Your task to perform on an android device: open device folders in google photos Image 0: 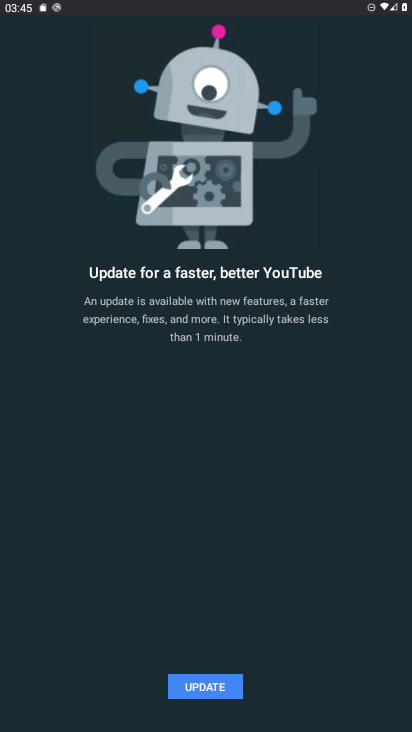
Step 0: press home button
Your task to perform on an android device: open device folders in google photos Image 1: 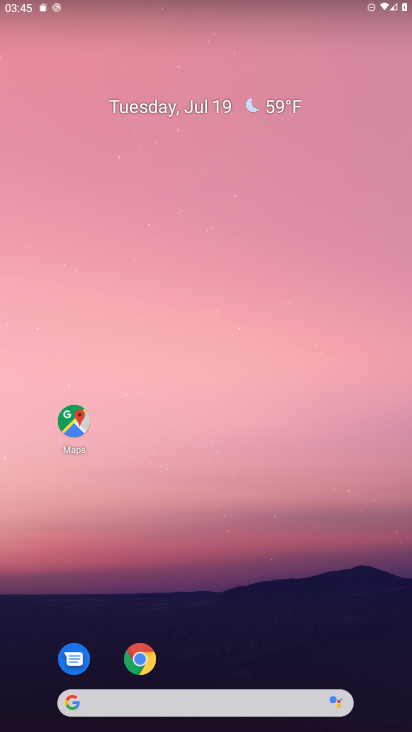
Step 1: drag from (194, 687) to (231, 78)
Your task to perform on an android device: open device folders in google photos Image 2: 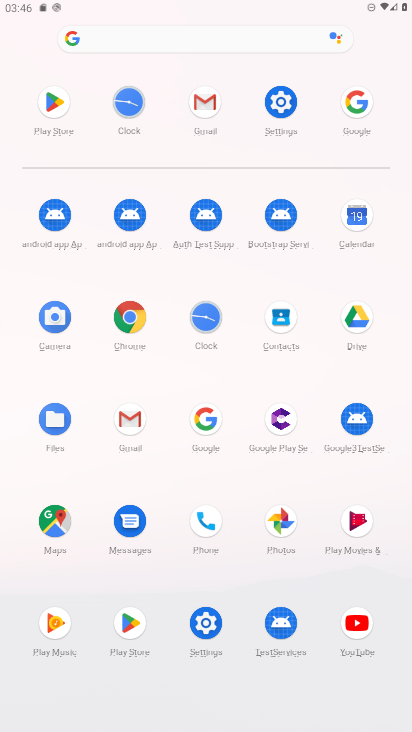
Step 2: click (282, 522)
Your task to perform on an android device: open device folders in google photos Image 3: 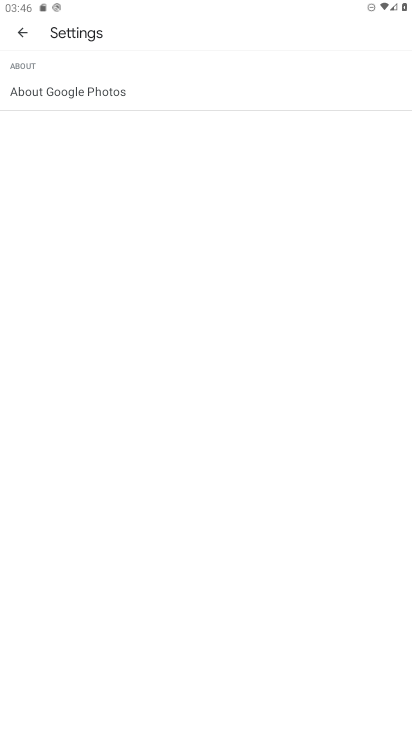
Step 3: press back button
Your task to perform on an android device: open device folders in google photos Image 4: 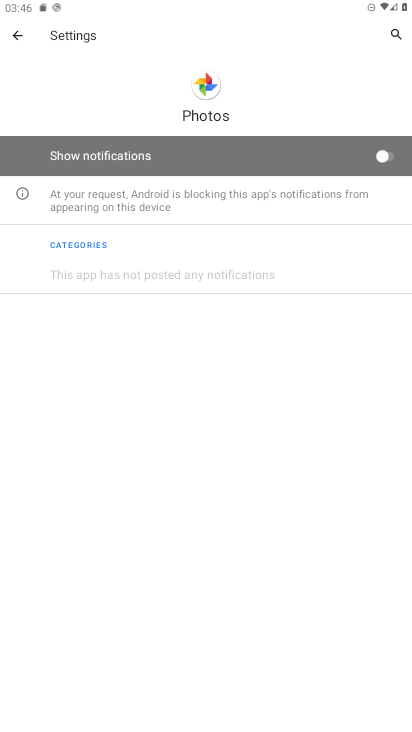
Step 4: press back button
Your task to perform on an android device: open device folders in google photos Image 5: 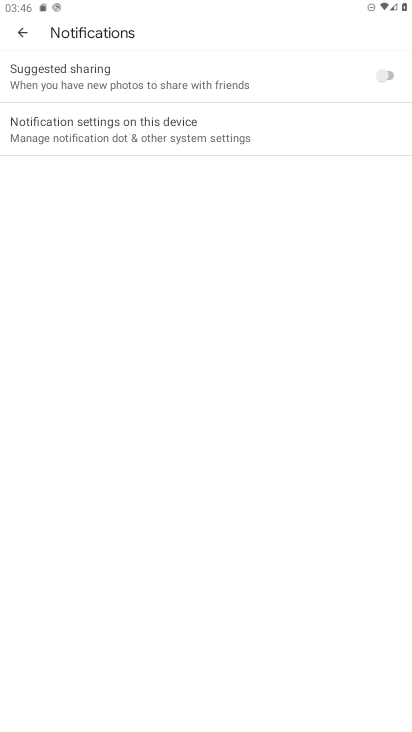
Step 5: press back button
Your task to perform on an android device: open device folders in google photos Image 6: 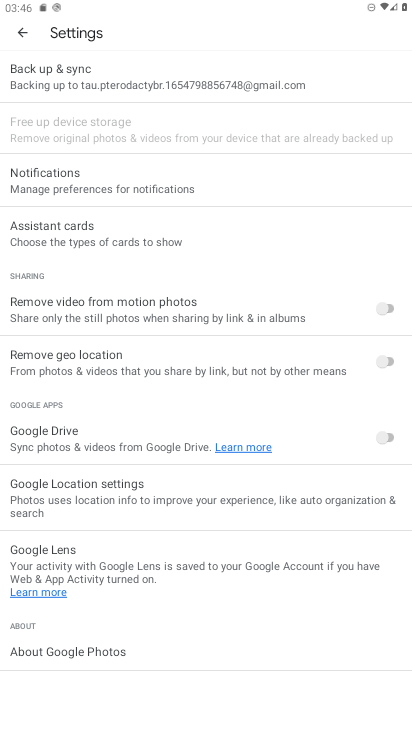
Step 6: press back button
Your task to perform on an android device: open device folders in google photos Image 7: 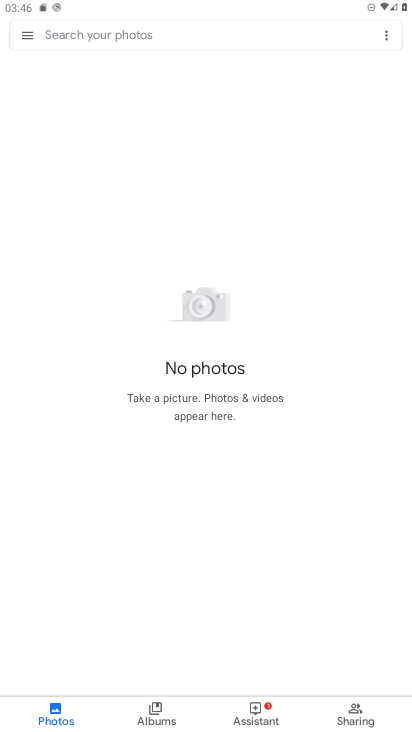
Step 7: click (28, 35)
Your task to perform on an android device: open device folders in google photos Image 8: 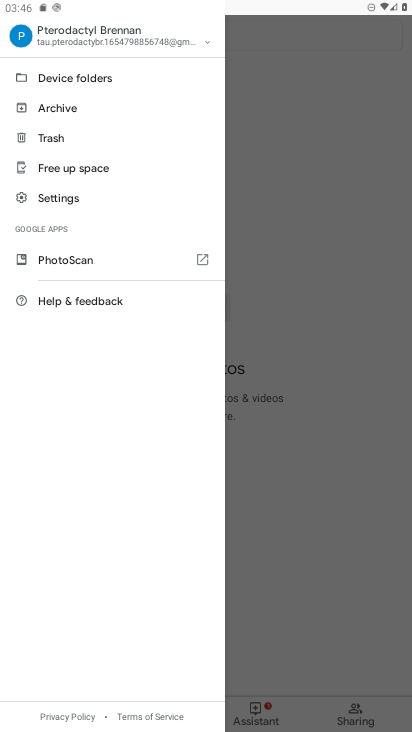
Step 8: click (46, 80)
Your task to perform on an android device: open device folders in google photos Image 9: 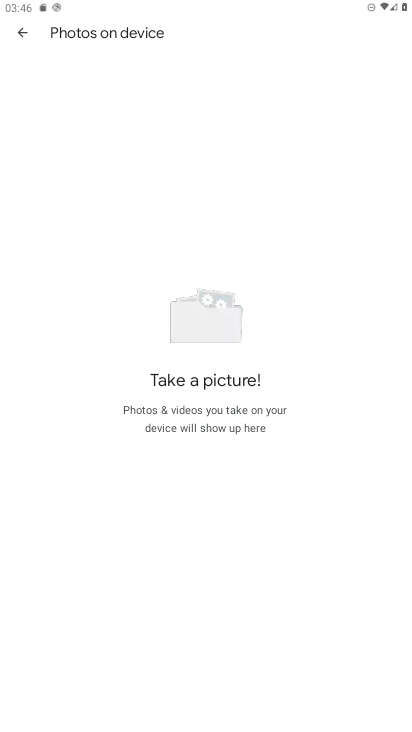
Step 9: task complete